Your task to perform on an android device: Open Google Image 0: 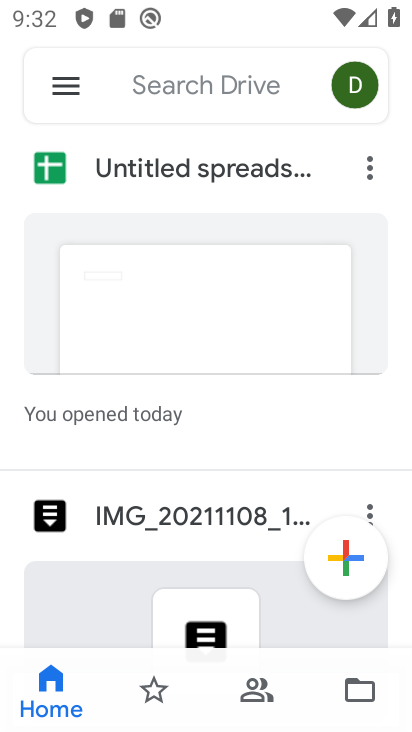
Step 0: press home button
Your task to perform on an android device: Open Google Image 1: 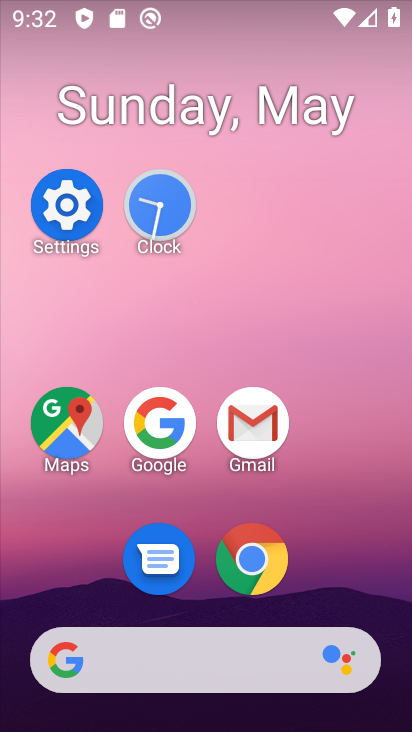
Step 1: click (158, 422)
Your task to perform on an android device: Open Google Image 2: 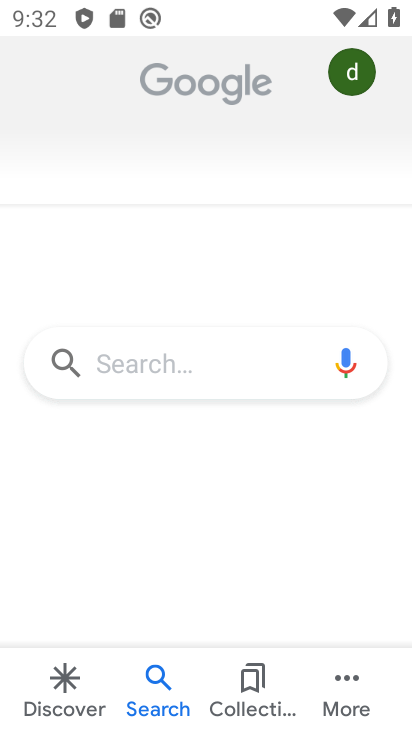
Step 2: task complete